Your task to perform on an android device: remove spam from my inbox in the gmail app Image 0: 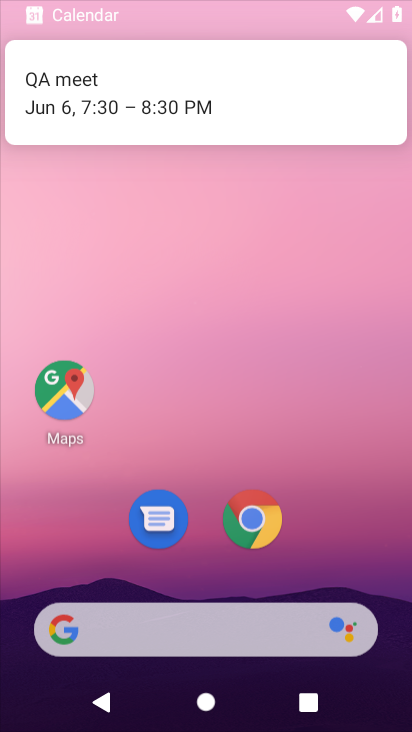
Step 0: press home button
Your task to perform on an android device: remove spam from my inbox in the gmail app Image 1: 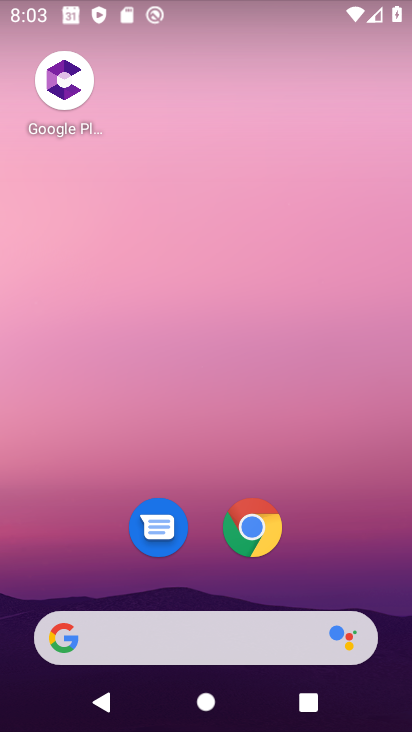
Step 1: drag from (211, 582) to (244, 0)
Your task to perform on an android device: remove spam from my inbox in the gmail app Image 2: 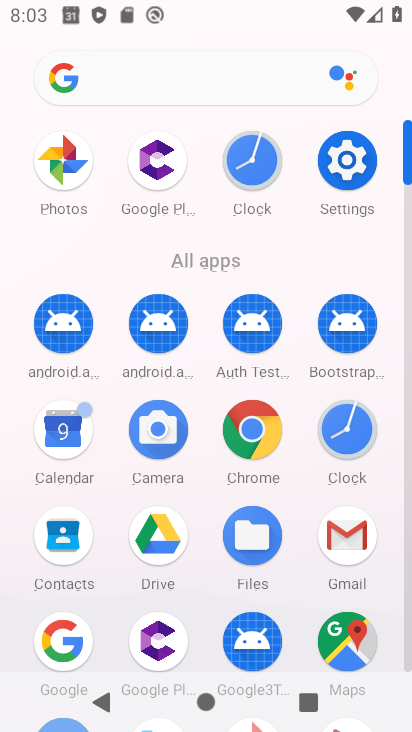
Step 2: click (342, 533)
Your task to perform on an android device: remove spam from my inbox in the gmail app Image 3: 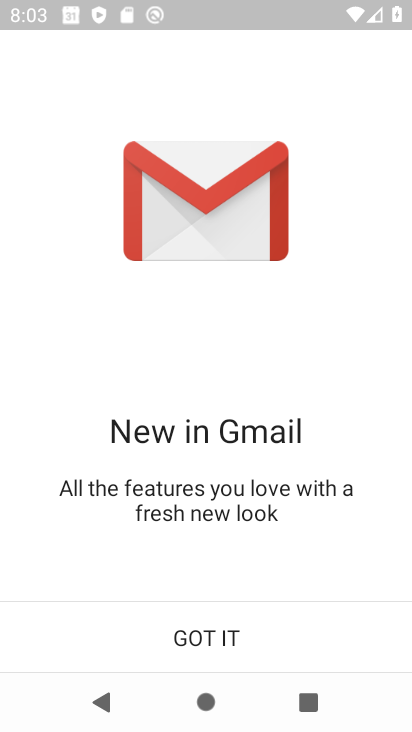
Step 3: click (208, 644)
Your task to perform on an android device: remove spam from my inbox in the gmail app Image 4: 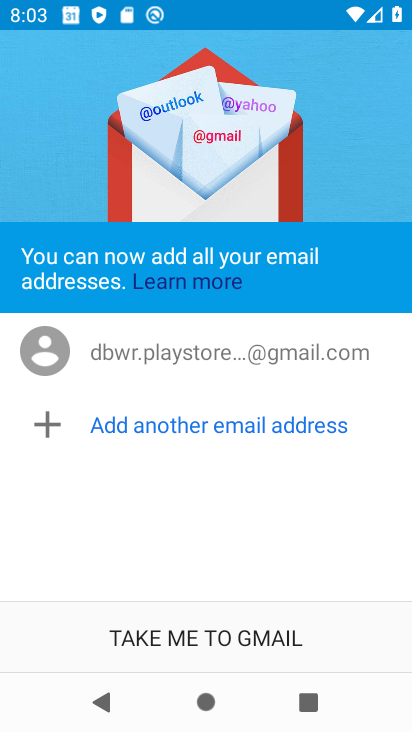
Step 4: click (217, 647)
Your task to perform on an android device: remove spam from my inbox in the gmail app Image 5: 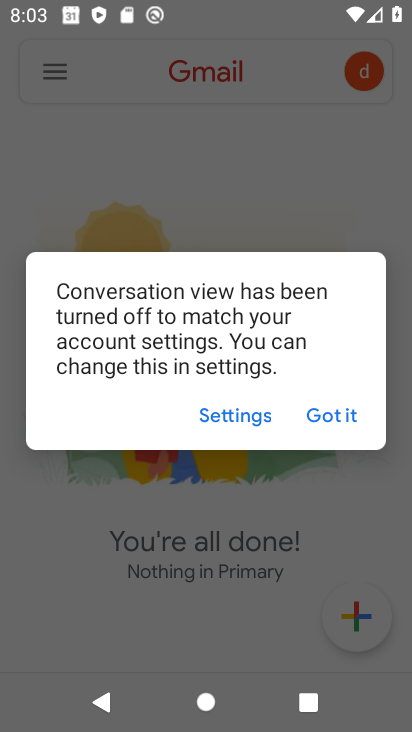
Step 5: click (336, 417)
Your task to perform on an android device: remove spam from my inbox in the gmail app Image 6: 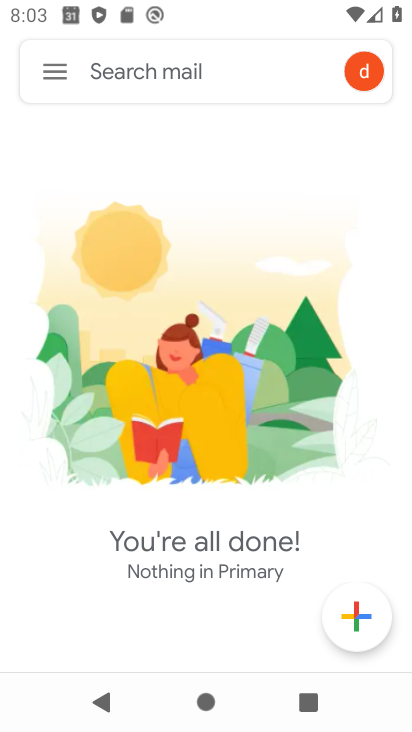
Step 6: click (46, 63)
Your task to perform on an android device: remove spam from my inbox in the gmail app Image 7: 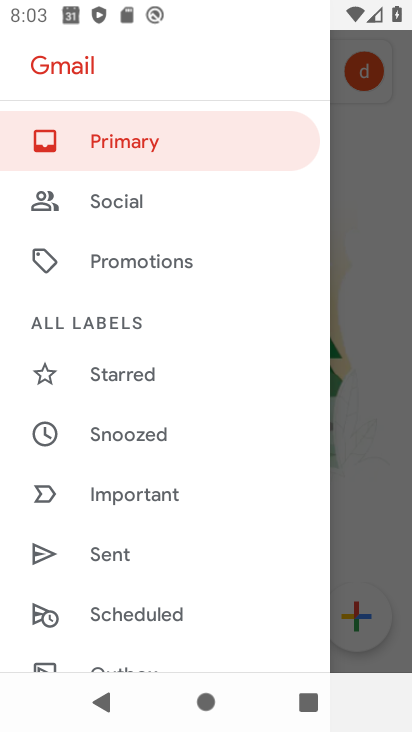
Step 7: drag from (121, 572) to (145, 21)
Your task to perform on an android device: remove spam from my inbox in the gmail app Image 8: 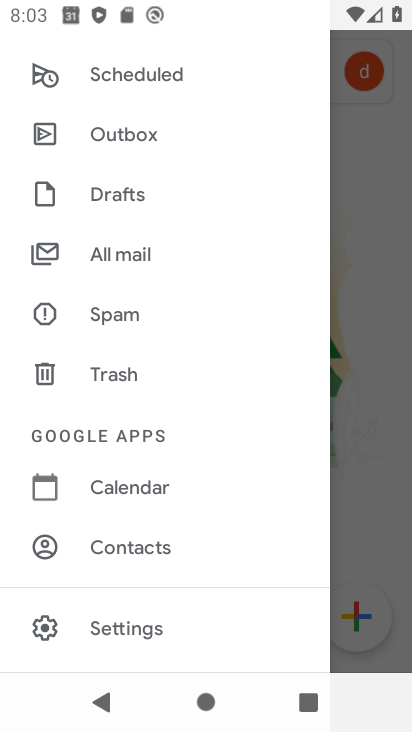
Step 8: click (118, 312)
Your task to perform on an android device: remove spam from my inbox in the gmail app Image 9: 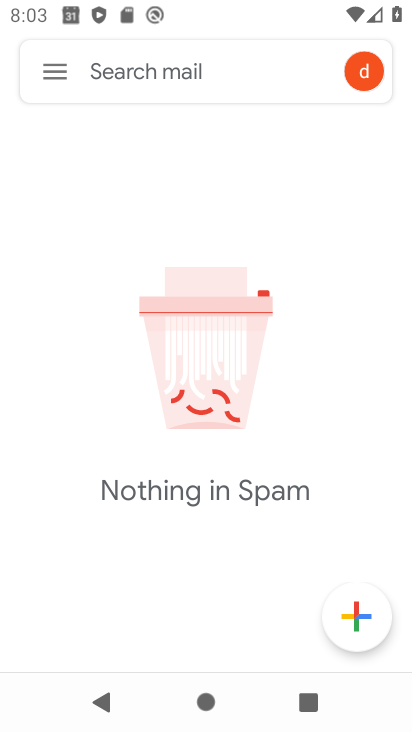
Step 9: task complete